Your task to perform on an android device: refresh tabs in the chrome app Image 0: 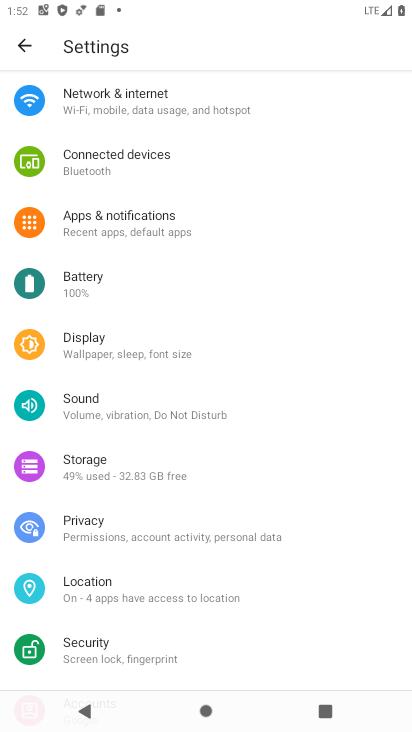
Step 0: press home button
Your task to perform on an android device: refresh tabs in the chrome app Image 1: 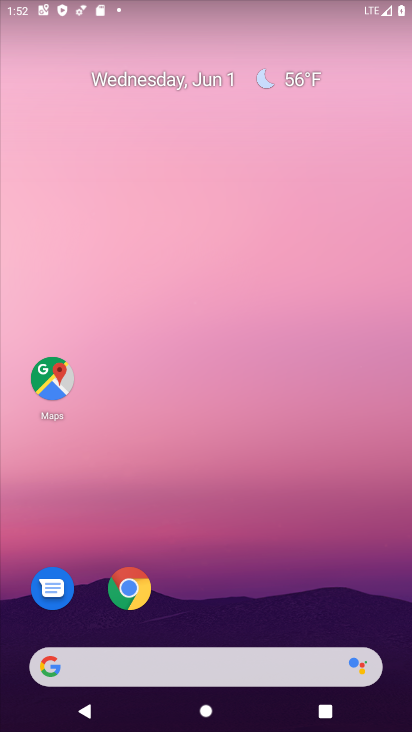
Step 1: click (130, 579)
Your task to perform on an android device: refresh tabs in the chrome app Image 2: 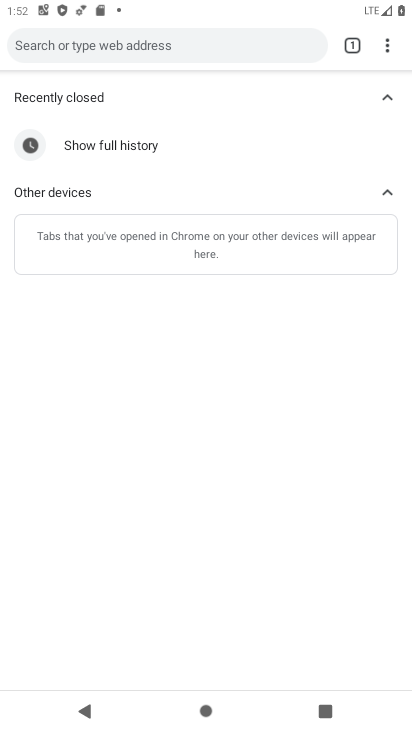
Step 2: click (382, 48)
Your task to perform on an android device: refresh tabs in the chrome app Image 3: 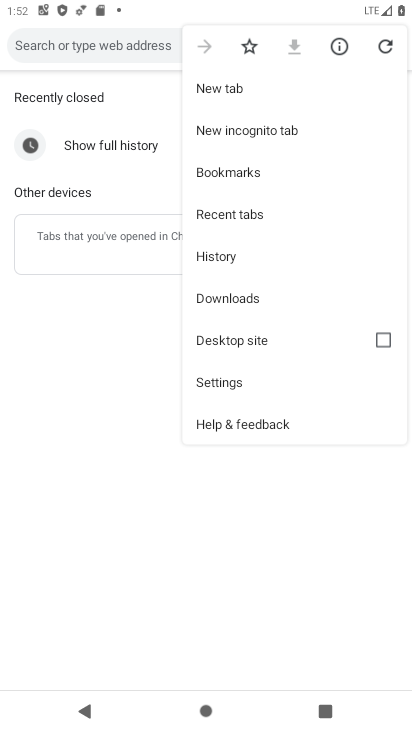
Step 3: click (386, 40)
Your task to perform on an android device: refresh tabs in the chrome app Image 4: 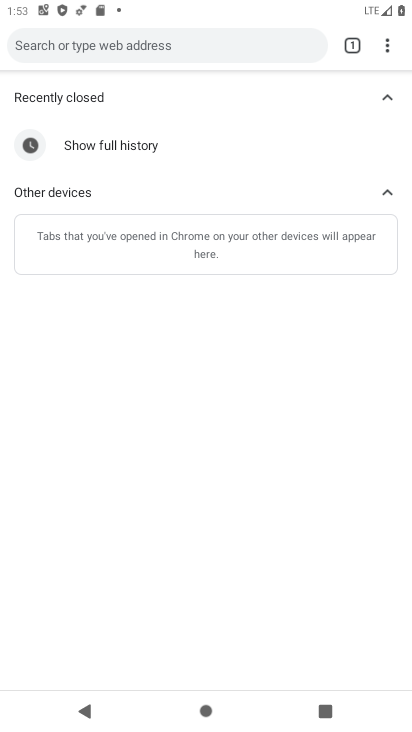
Step 4: task complete